Your task to perform on an android device: Show me productivity apps on the Play Store Image 0: 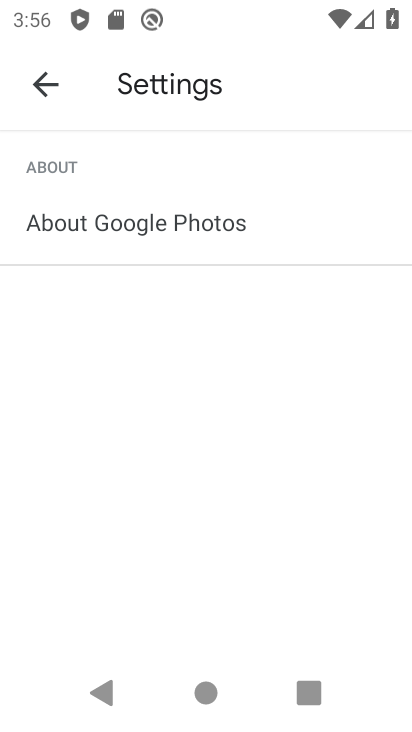
Step 0: press home button
Your task to perform on an android device: Show me productivity apps on the Play Store Image 1: 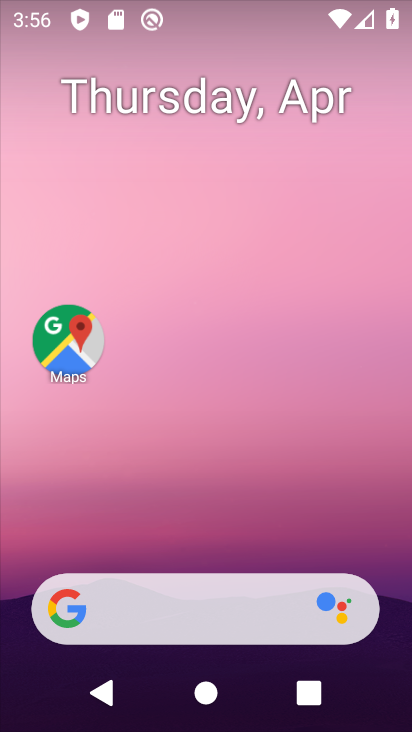
Step 1: drag from (209, 724) to (218, 200)
Your task to perform on an android device: Show me productivity apps on the Play Store Image 2: 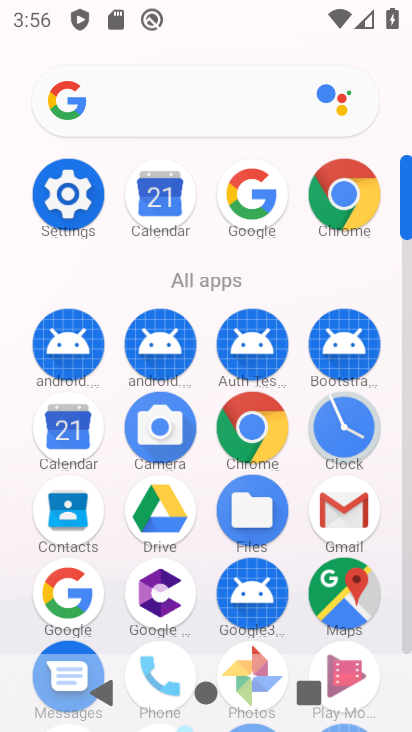
Step 2: drag from (200, 652) to (201, 150)
Your task to perform on an android device: Show me productivity apps on the Play Store Image 3: 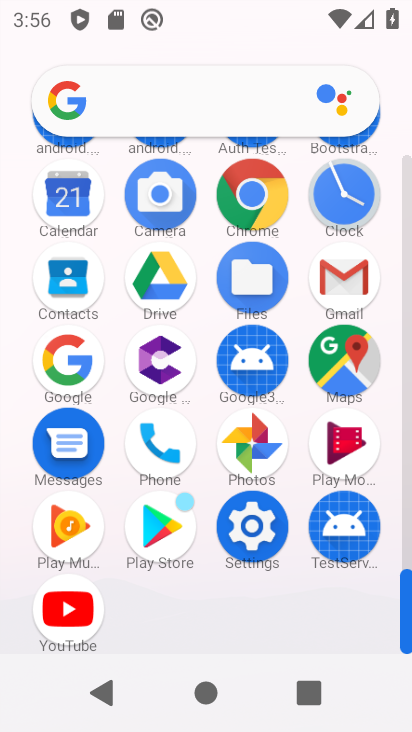
Step 3: click (158, 528)
Your task to perform on an android device: Show me productivity apps on the Play Store Image 4: 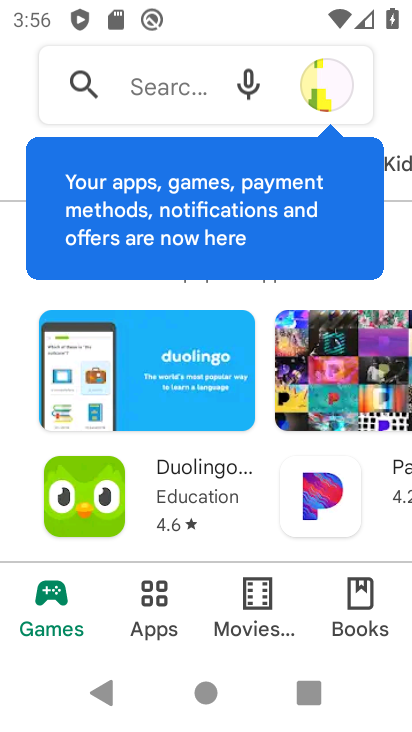
Step 4: click (150, 600)
Your task to perform on an android device: Show me productivity apps on the Play Store Image 5: 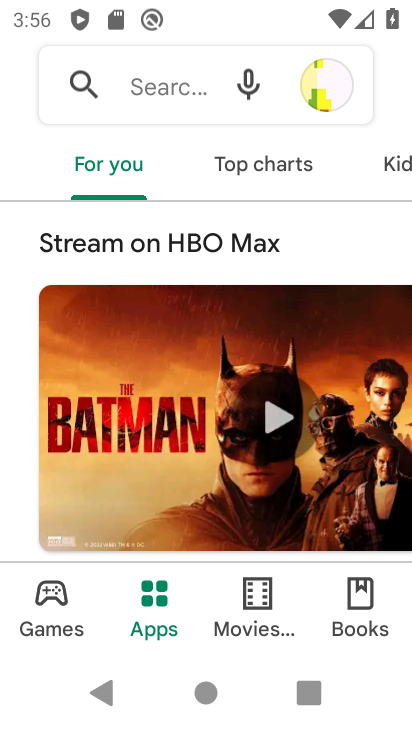
Step 5: drag from (270, 164) to (94, 157)
Your task to perform on an android device: Show me productivity apps on the Play Store Image 6: 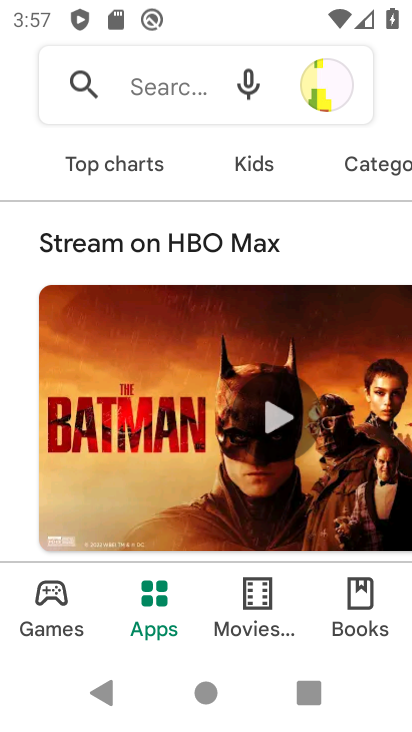
Step 6: drag from (325, 165) to (162, 163)
Your task to perform on an android device: Show me productivity apps on the Play Store Image 7: 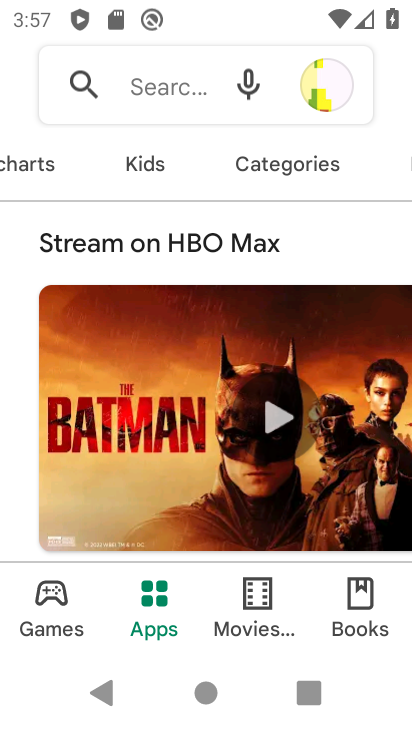
Step 7: click (284, 165)
Your task to perform on an android device: Show me productivity apps on the Play Store Image 8: 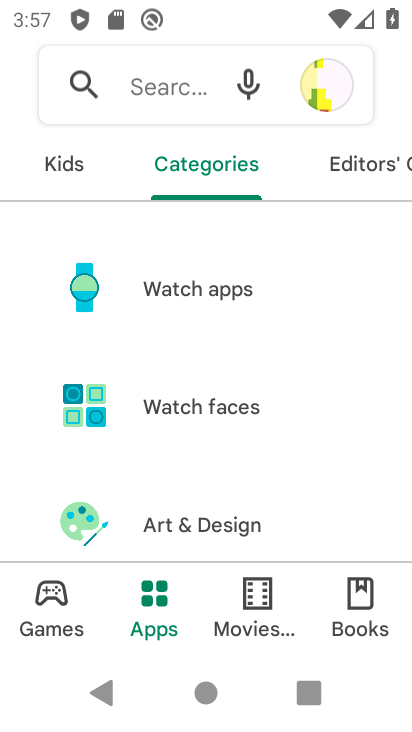
Step 8: drag from (251, 507) to (281, 164)
Your task to perform on an android device: Show me productivity apps on the Play Store Image 9: 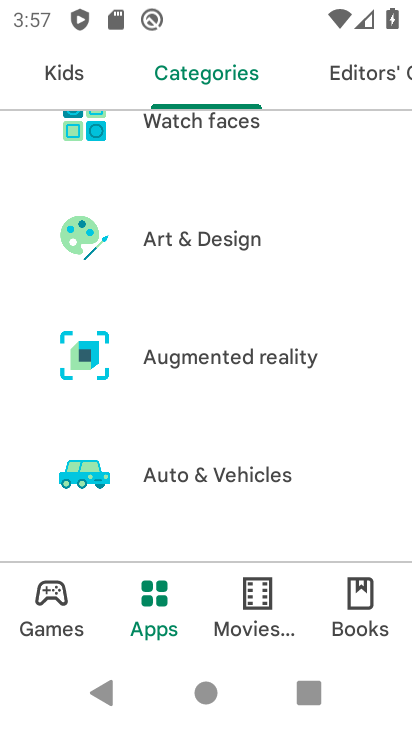
Step 9: drag from (264, 533) to (275, 213)
Your task to perform on an android device: Show me productivity apps on the Play Store Image 10: 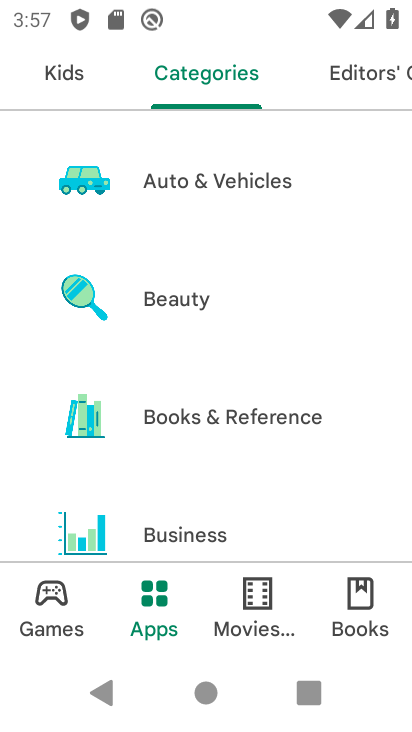
Step 10: drag from (276, 531) to (297, 235)
Your task to perform on an android device: Show me productivity apps on the Play Store Image 11: 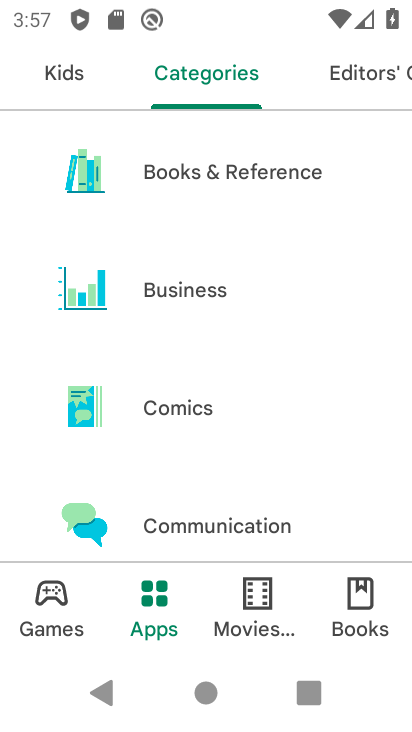
Step 11: drag from (279, 501) to (287, 204)
Your task to perform on an android device: Show me productivity apps on the Play Store Image 12: 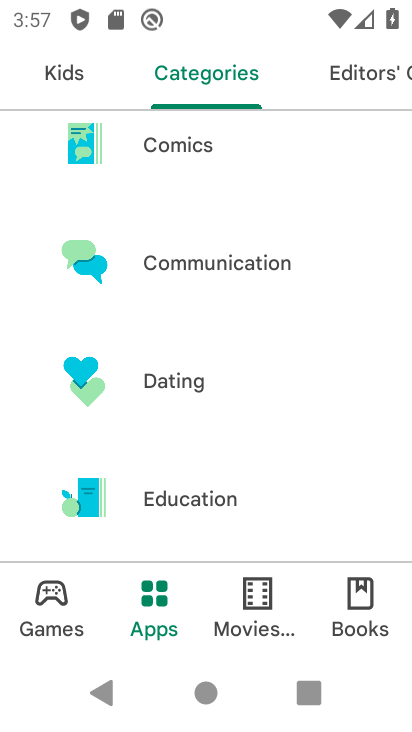
Step 12: drag from (265, 533) to (290, 247)
Your task to perform on an android device: Show me productivity apps on the Play Store Image 13: 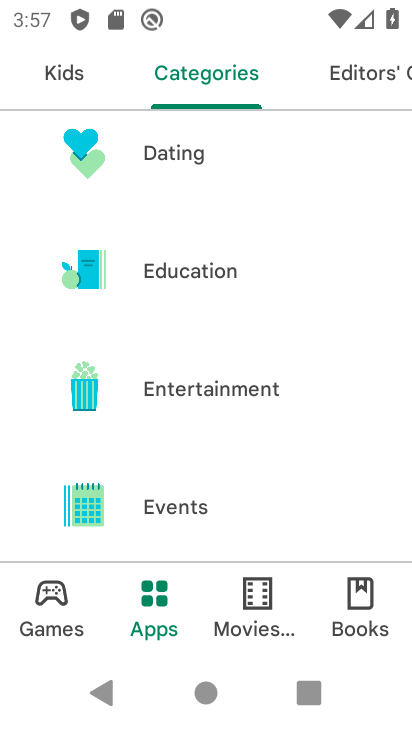
Step 13: drag from (274, 534) to (294, 207)
Your task to perform on an android device: Show me productivity apps on the Play Store Image 14: 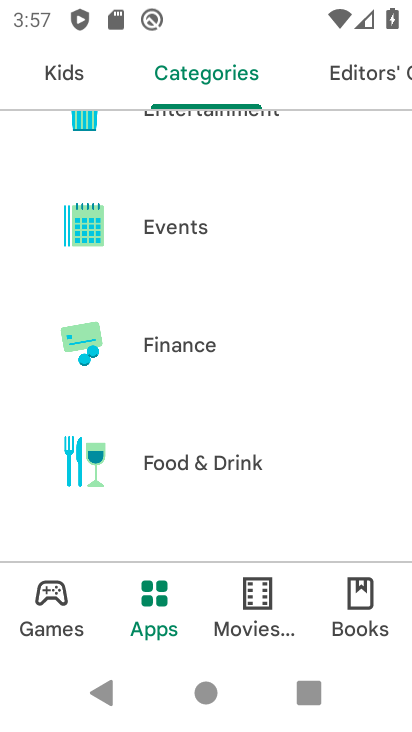
Step 14: drag from (276, 535) to (301, 205)
Your task to perform on an android device: Show me productivity apps on the Play Store Image 15: 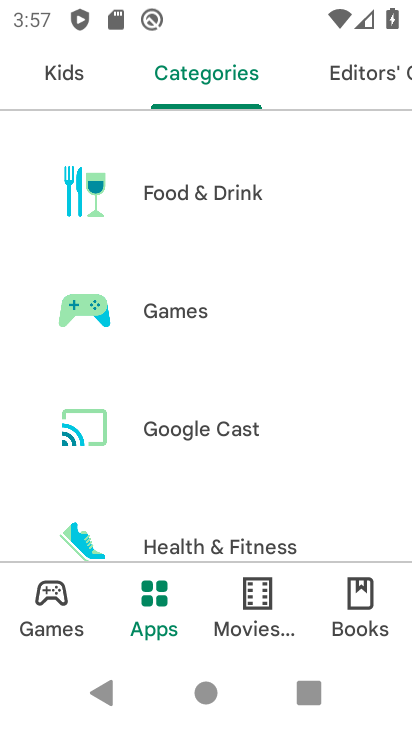
Step 15: drag from (280, 525) to (303, 209)
Your task to perform on an android device: Show me productivity apps on the Play Store Image 16: 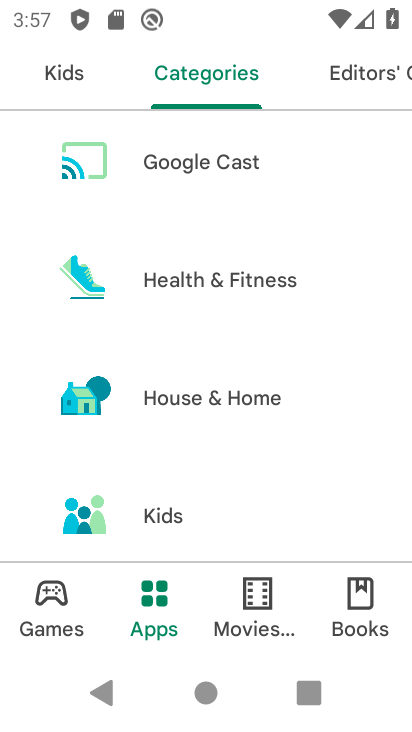
Step 16: drag from (279, 533) to (299, 223)
Your task to perform on an android device: Show me productivity apps on the Play Store Image 17: 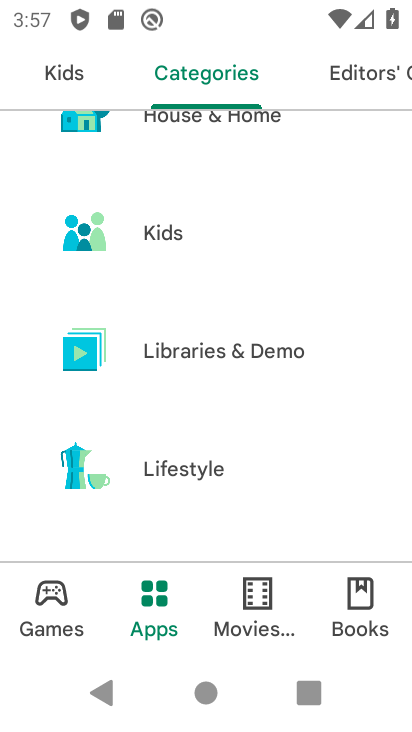
Step 17: drag from (253, 532) to (280, 232)
Your task to perform on an android device: Show me productivity apps on the Play Store Image 18: 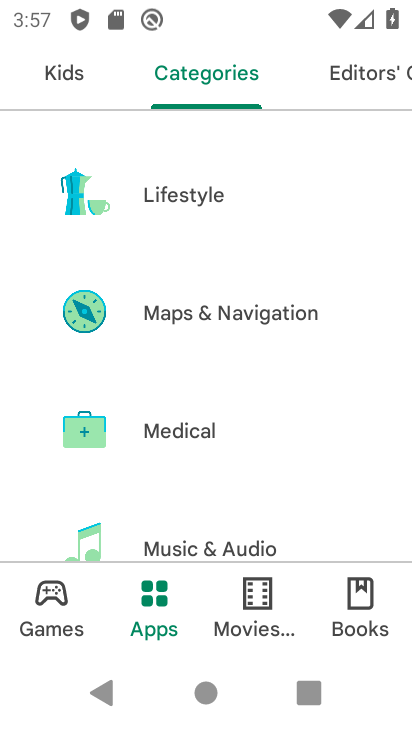
Step 18: drag from (304, 511) to (303, 199)
Your task to perform on an android device: Show me productivity apps on the Play Store Image 19: 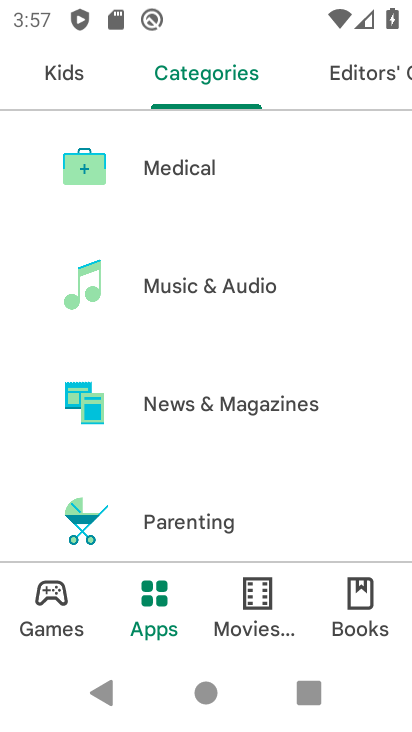
Step 19: drag from (294, 513) to (304, 187)
Your task to perform on an android device: Show me productivity apps on the Play Store Image 20: 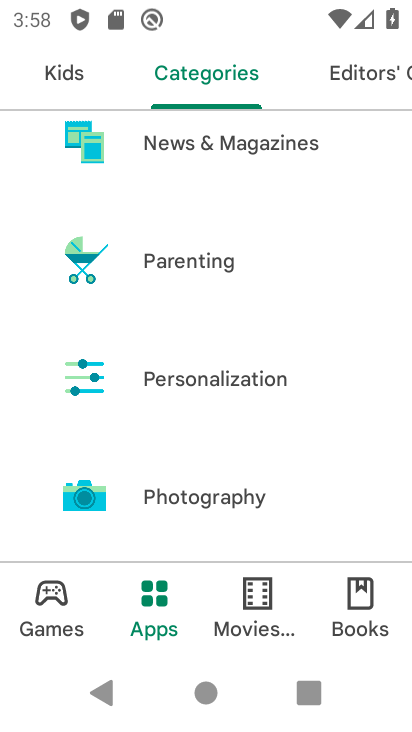
Step 20: drag from (296, 531) to (296, 264)
Your task to perform on an android device: Show me productivity apps on the Play Store Image 21: 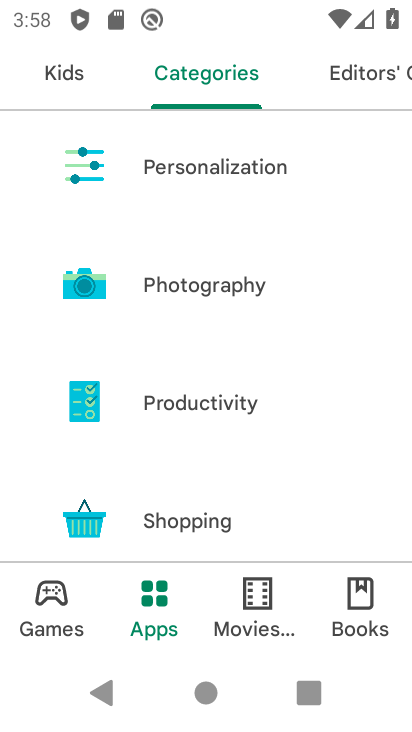
Step 21: click (163, 403)
Your task to perform on an android device: Show me productivity apps on the Play Store Image 22: 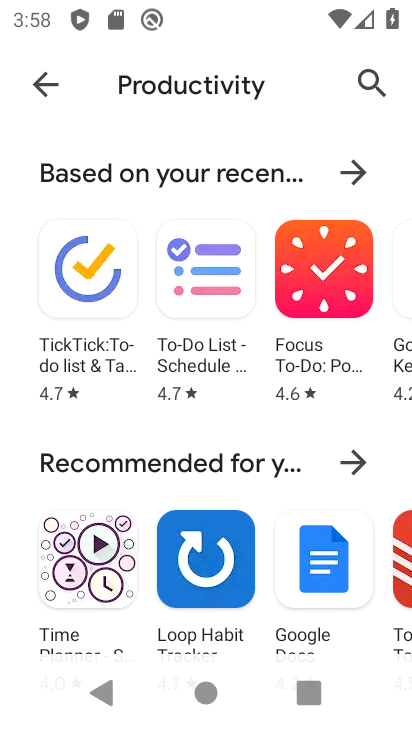
Step 22: task complete